Your task to perform on an android device: Open location settings Image 0: 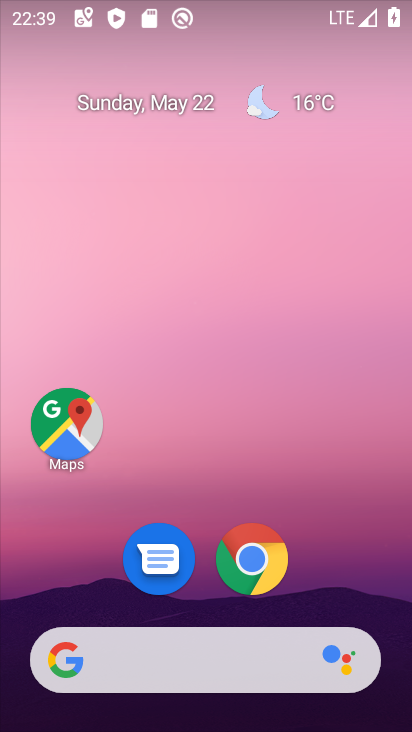
Step 0: drag from (256, 692) to (224, 108)
Your task to perform on an android device: Open location settings Image 1: 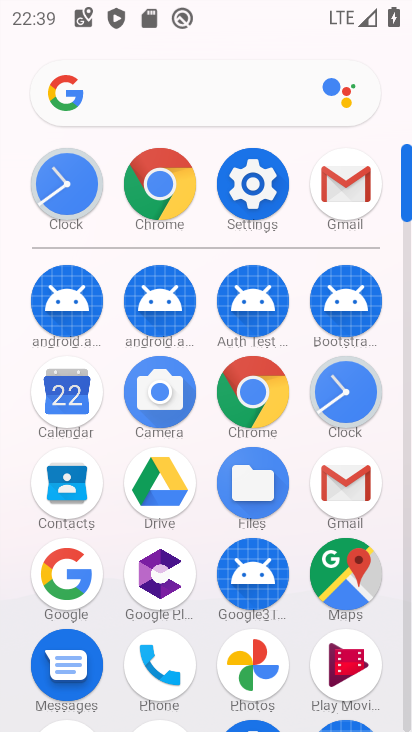
Step 1: click (257, 194)
Your task to perform on an android device: Open location settings Image 2: 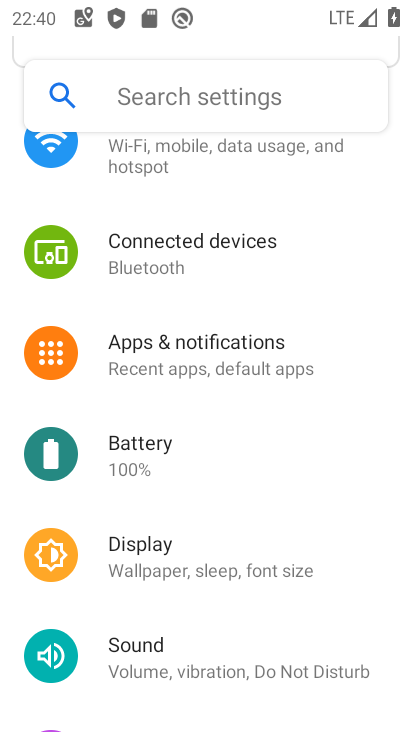
Step 2: click (169, 90)
Your task to perform on an android device: Open location settings Image 3: 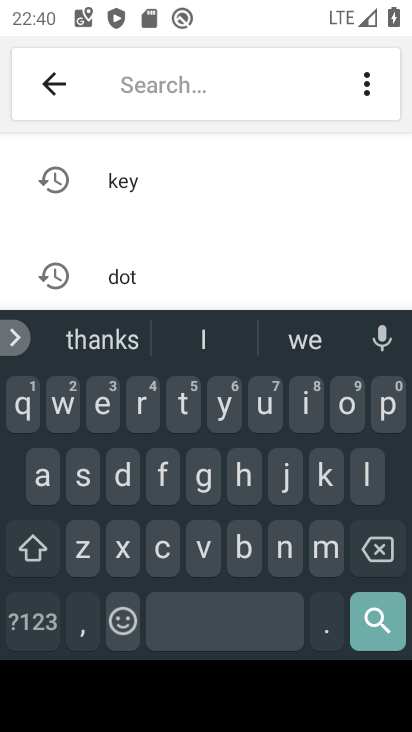
Step 3: click (361, 488)
Your task to perform on an android device: Open location settings Image 4: 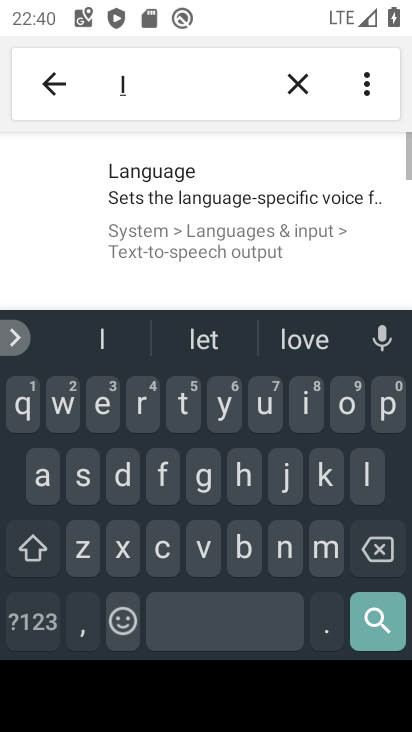
Step 4: click (350, 404)
Your task to perform on an android device: Open location settings Image 5: 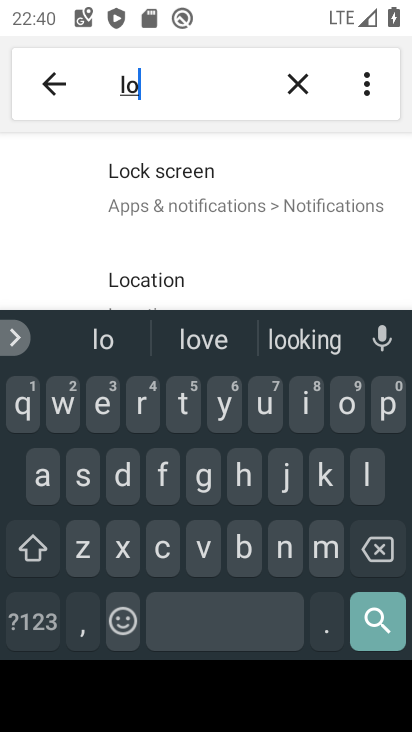
Step 5: click (141, 284)
Your task to perform on an android device: Open location settings Image 6: 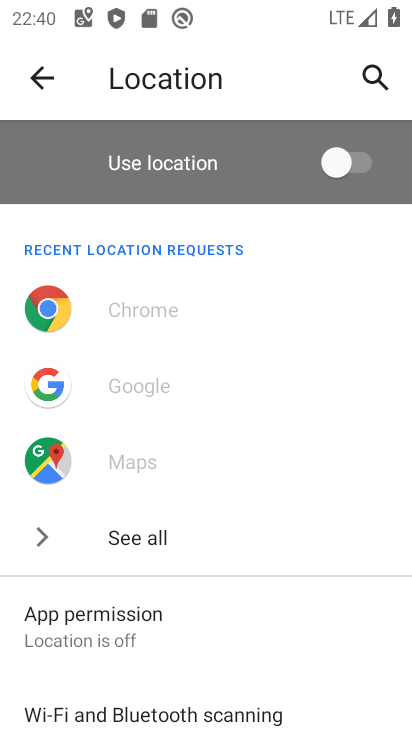
Step 6: task complete